Your task to perform on an android device: Open Chrome and go to settings Image 0: 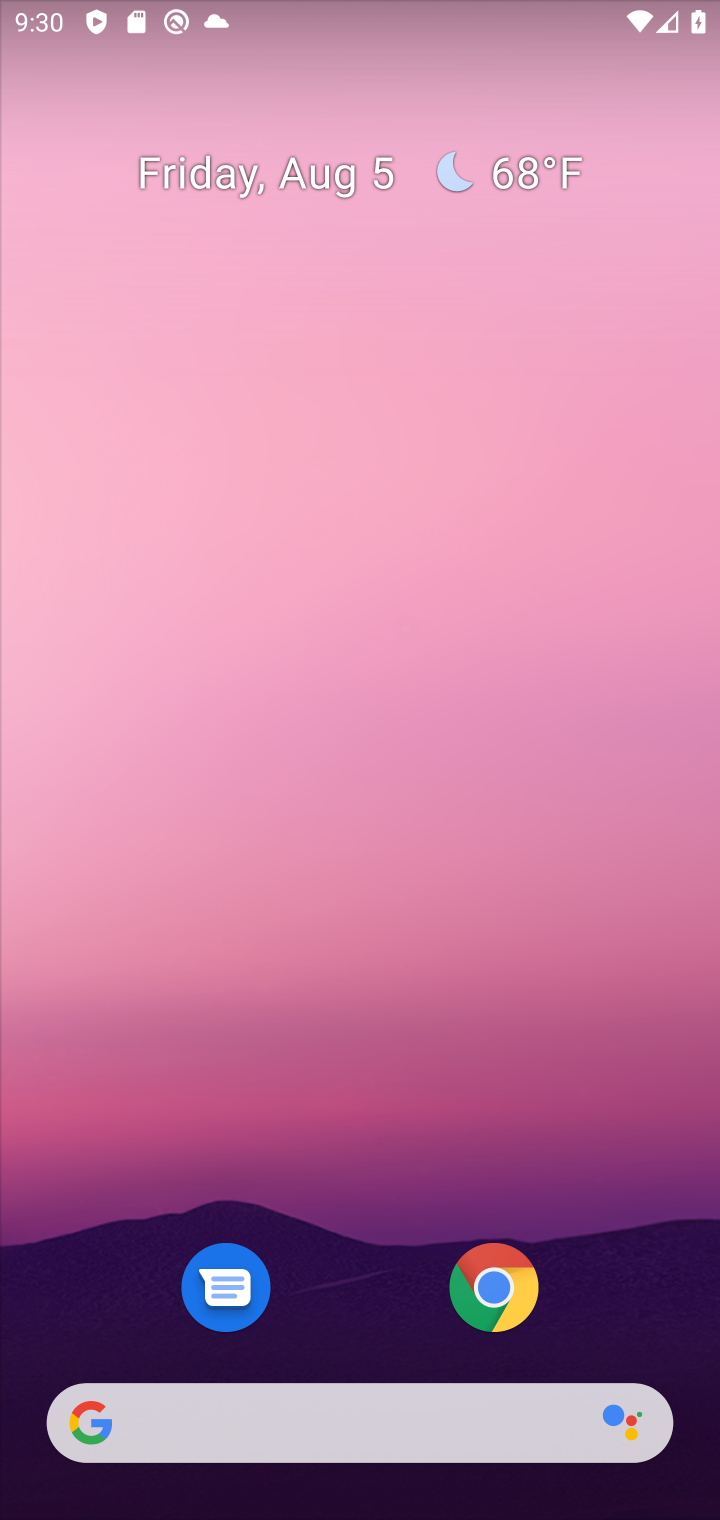
Step 0: click (497, 1288)
Your task to perform on an android device: Open Chrome and go to settings Image 1: 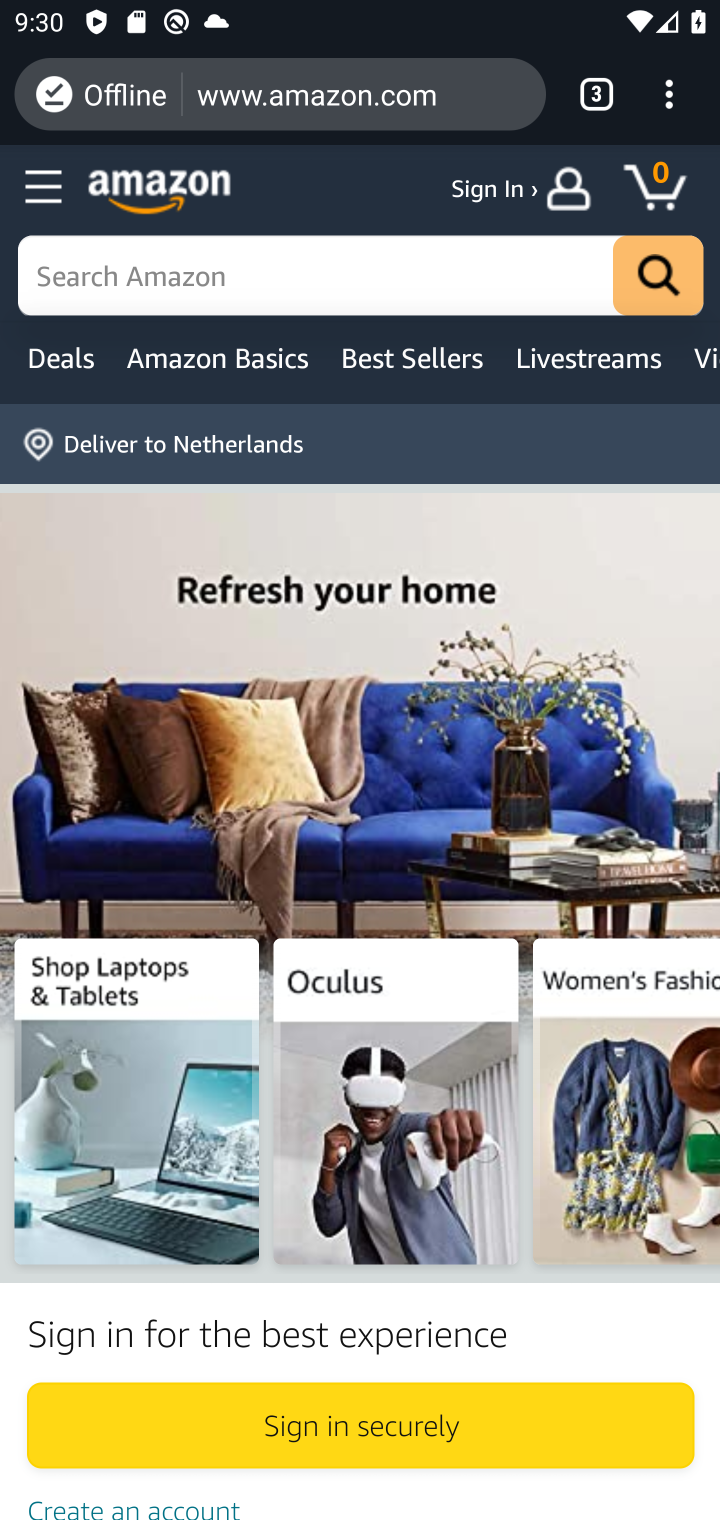
Step 1: click (671, 98)
Your task to perform on an android device: Open Chrome and go to settings Image 2: 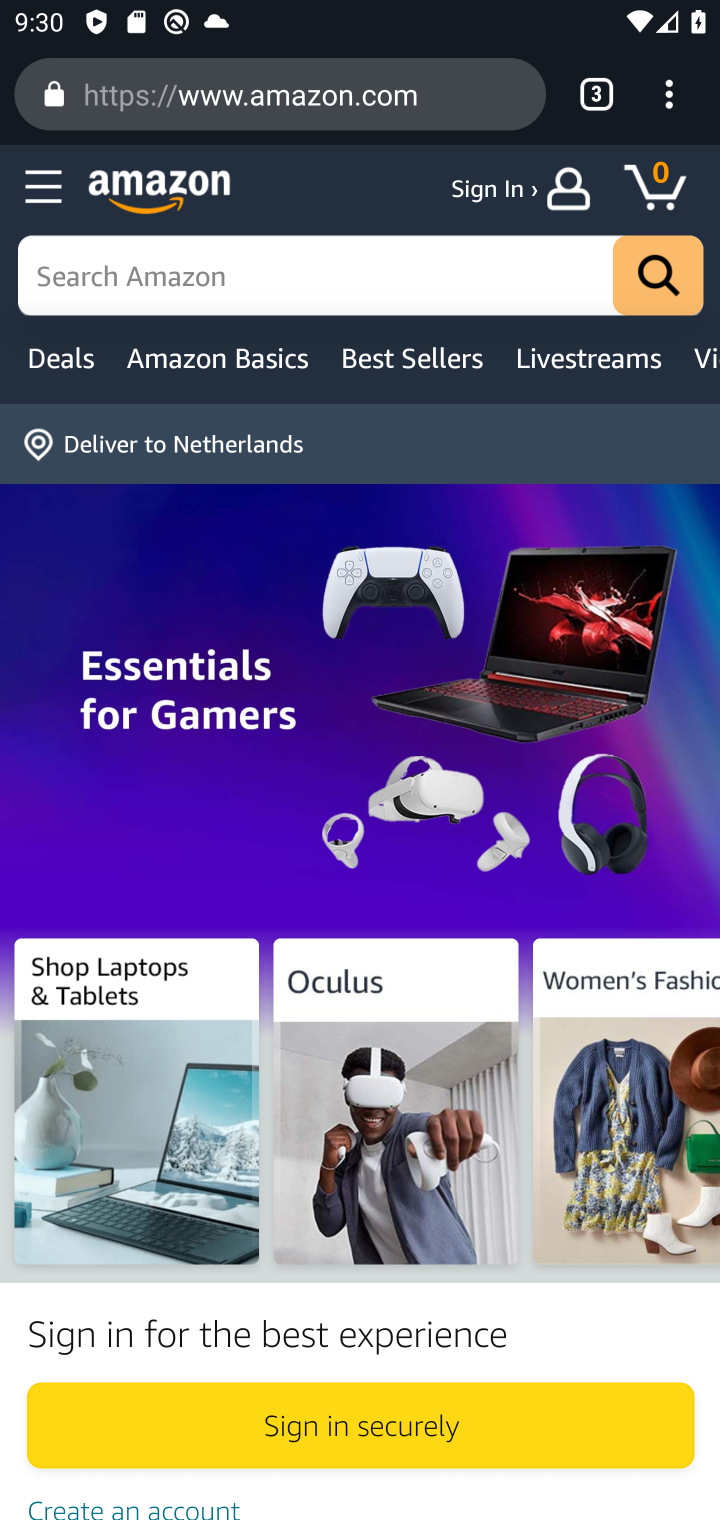
Step 2: task complete